Your task to perform on an android device: toggle pop-ups in chrome Image 0: 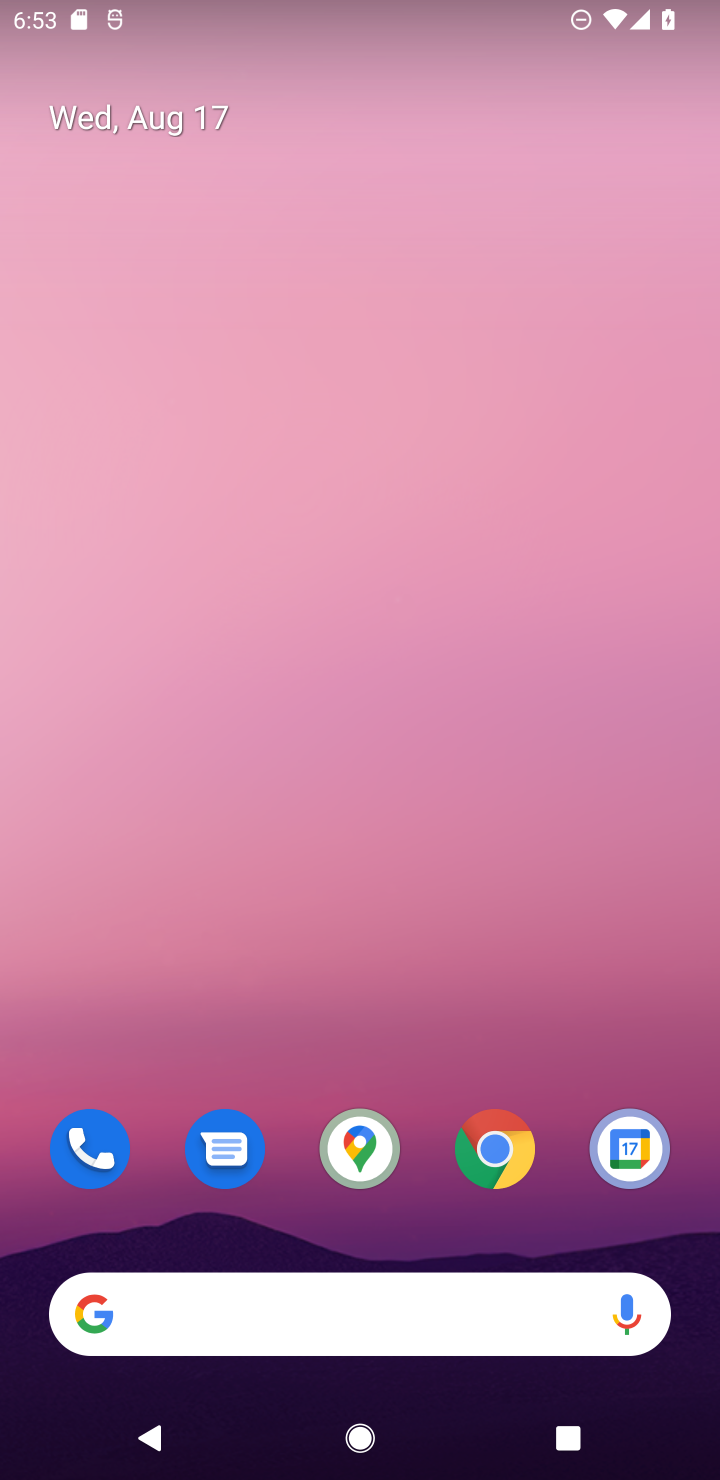
Step 0: click (497, 1156)
Your task to perform on an android device: toggle pop-ups in chrome Image 1: 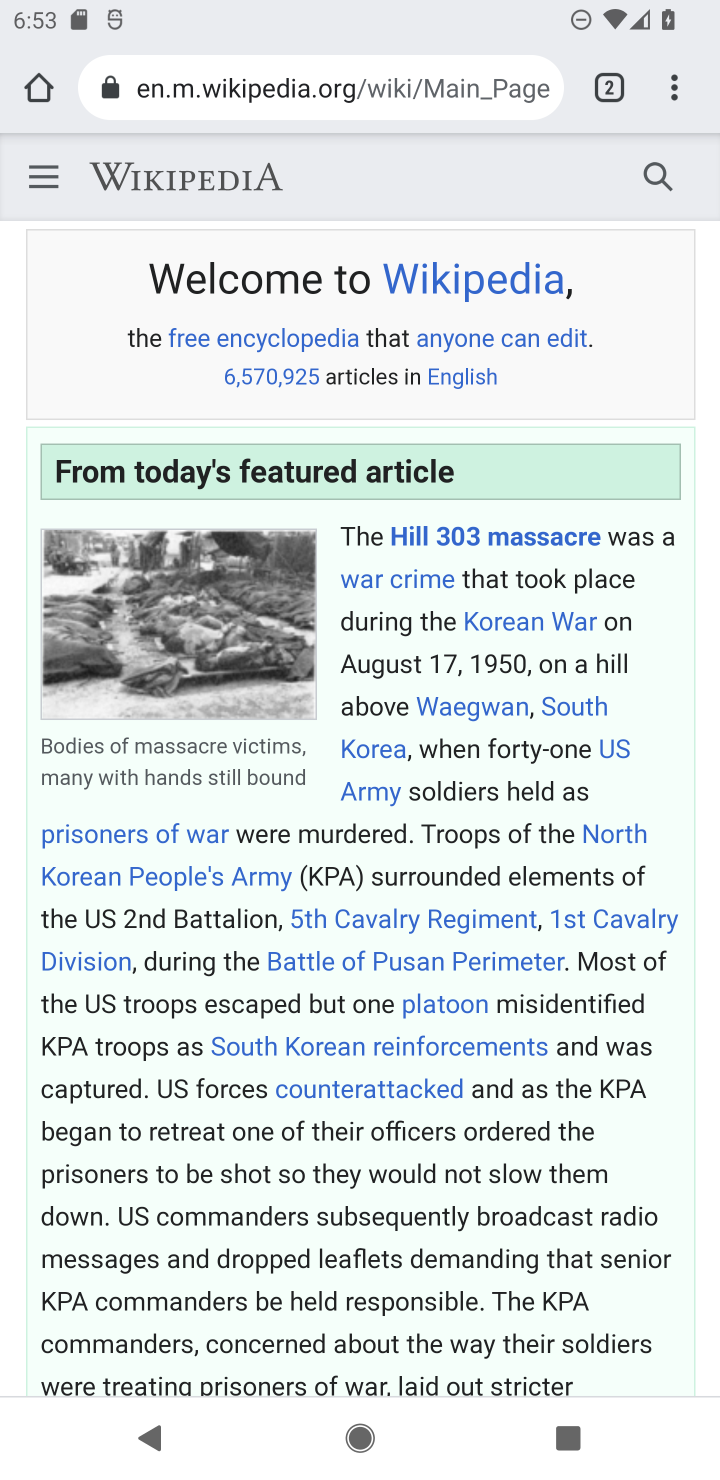
Step 1: click (670, 77)
Your task to perform on an android device: toggle pop-ups in chrome Image 2: 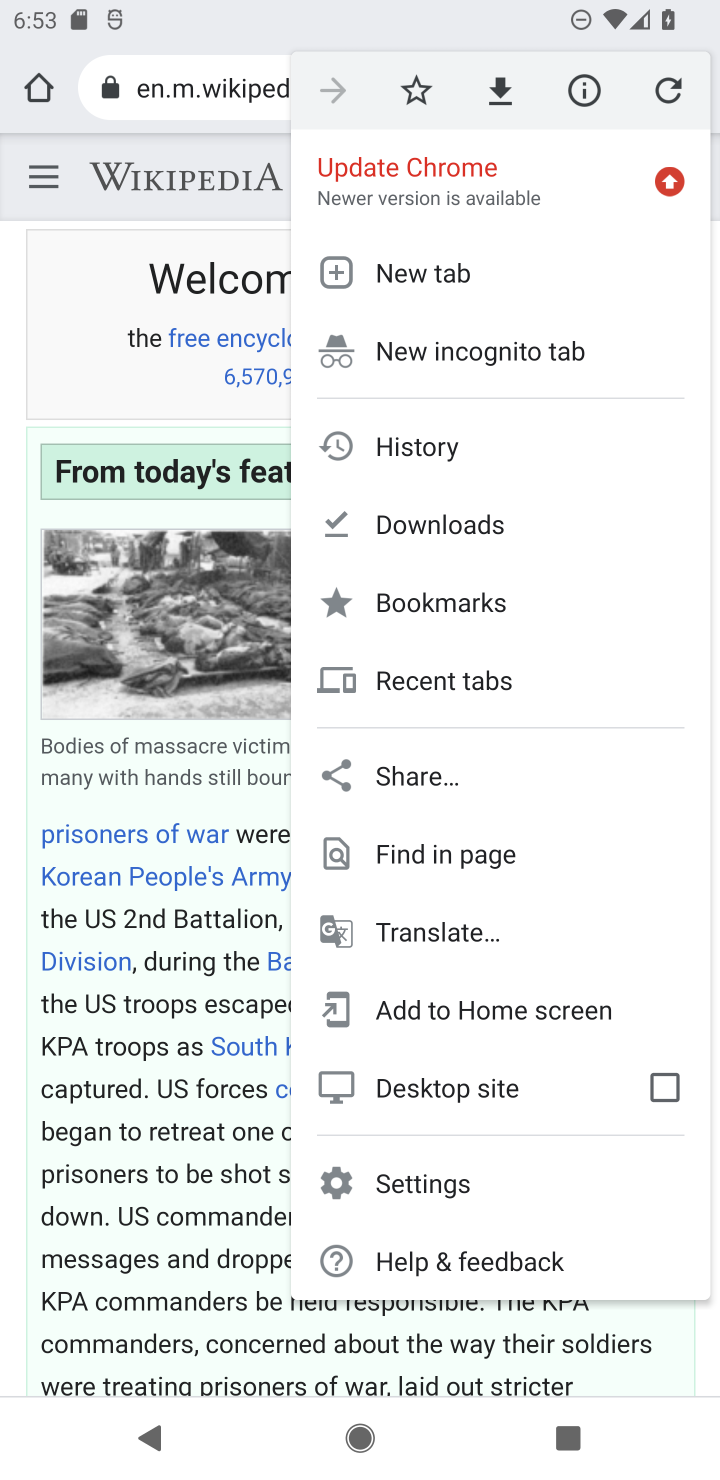
Step 2: click (436, 1189)
Your task to perform on an android device: toggle pop-ups in chrome Image 3: 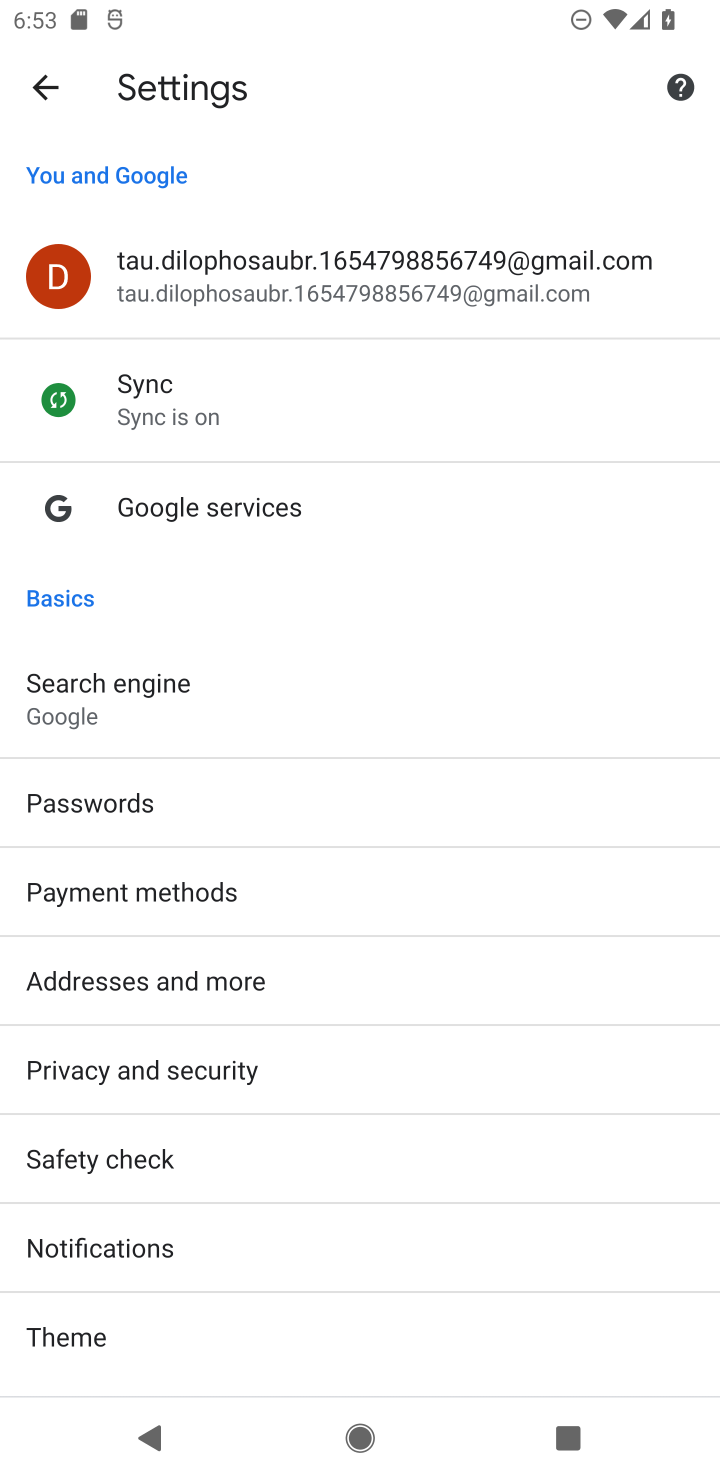
Step 3: drag from (326, 1212) to (291, 879)
Your task to perform on an android device: toggle pop-ups in chrome Image 4: 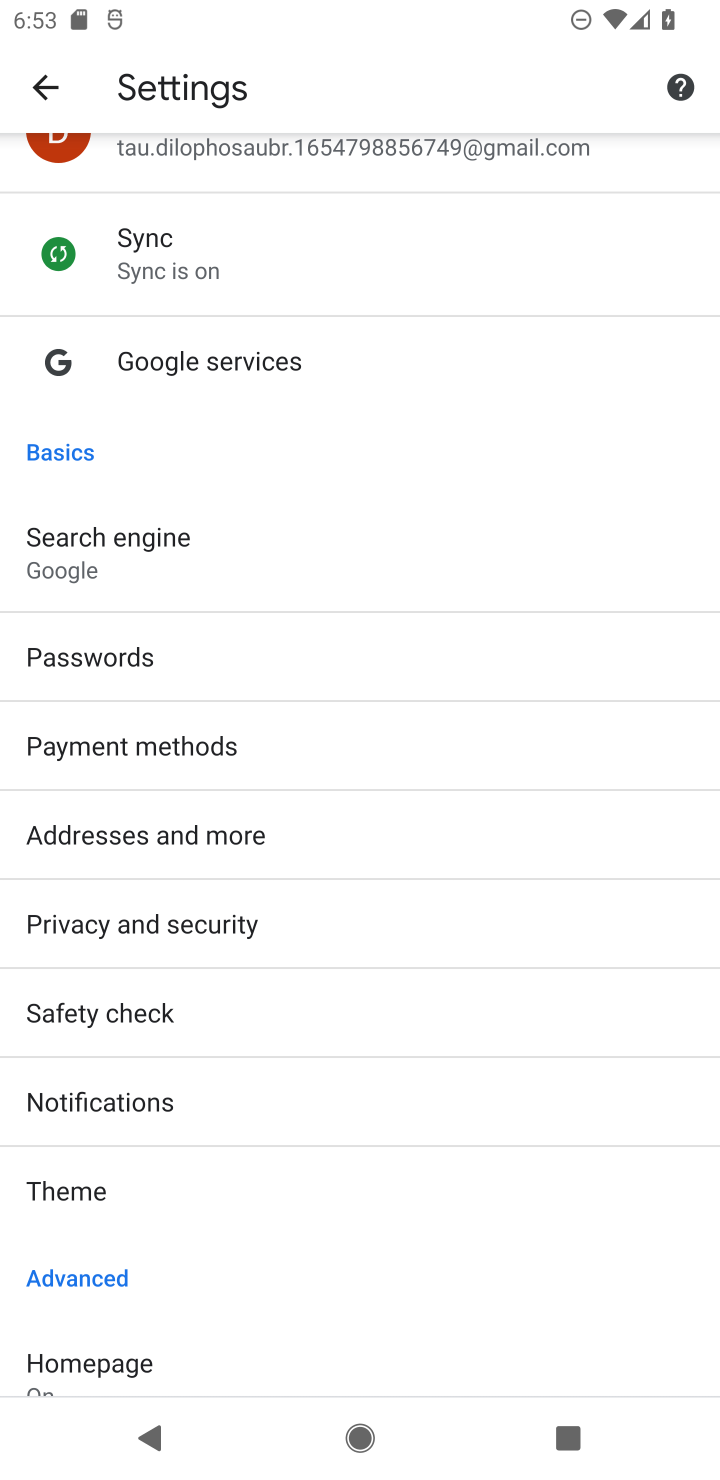
Step 4: drag from (316, 1109) to (265, 726)
Your task to perform on an android device: toggle pop-ups in chrome Image 5: 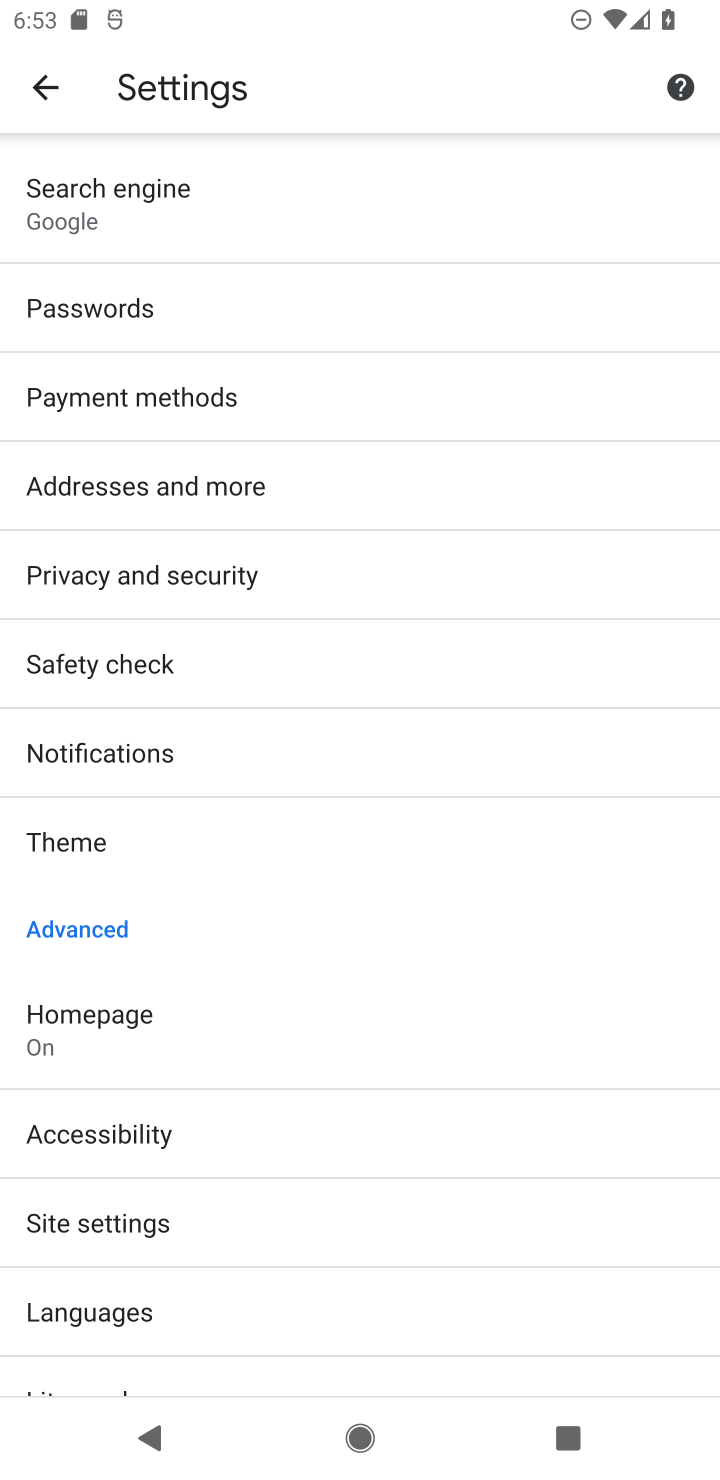
Step 5: click (136, 1209)
Your task to perform on an android device: toggle pop-ups in chrome Image 6: 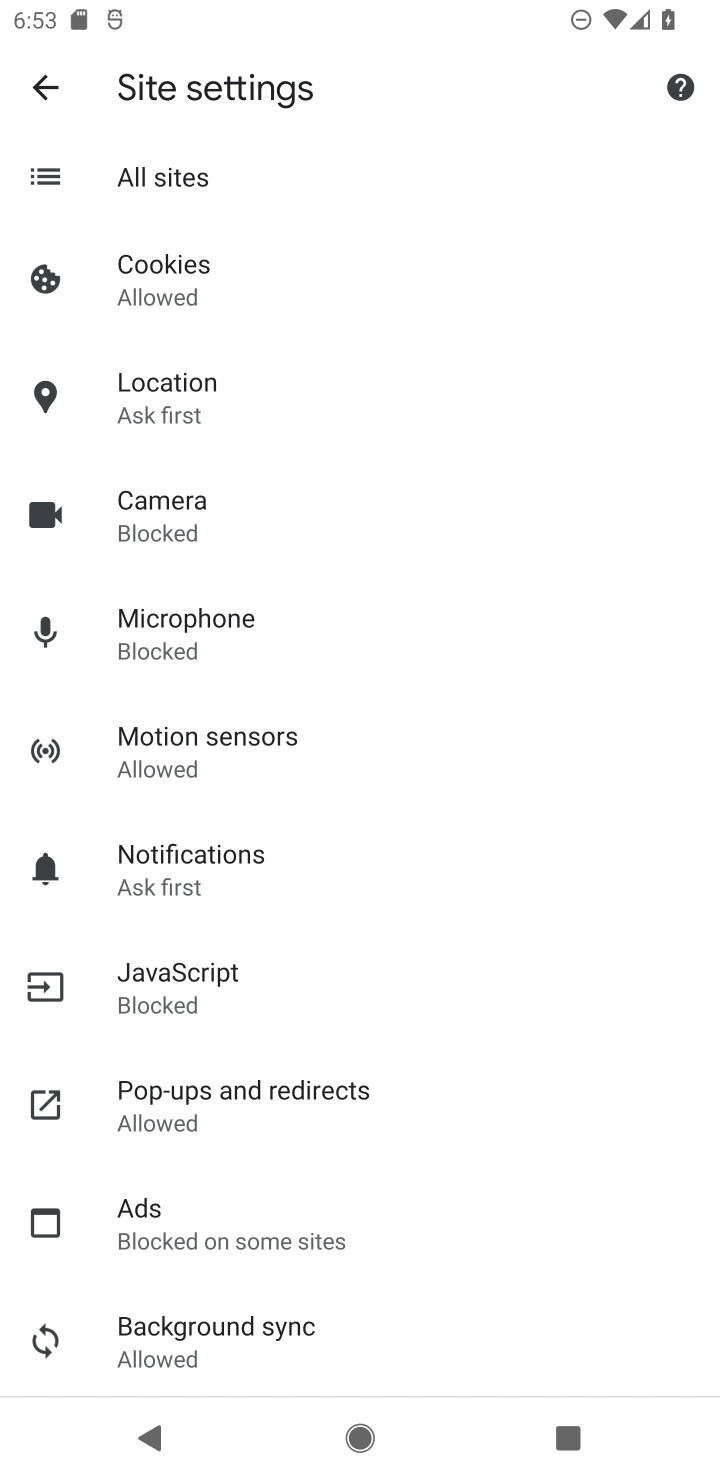
Step 6: click (202, 1077)
Your task to perform on an android device: toggle pop-ups in chrome Image 7: 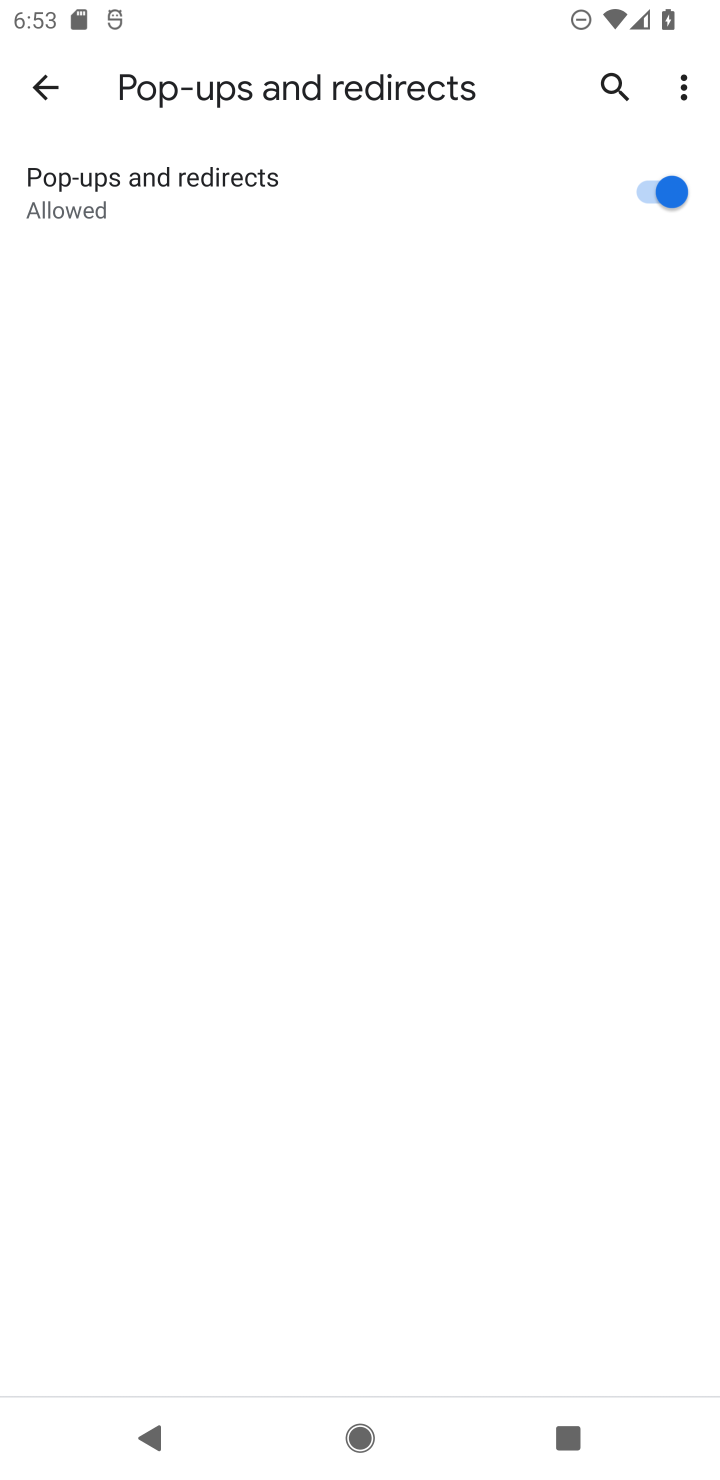
Step 7: click (651, 174)
Your task to perform on an android device: toggle pop-ups in chrome Image 8: 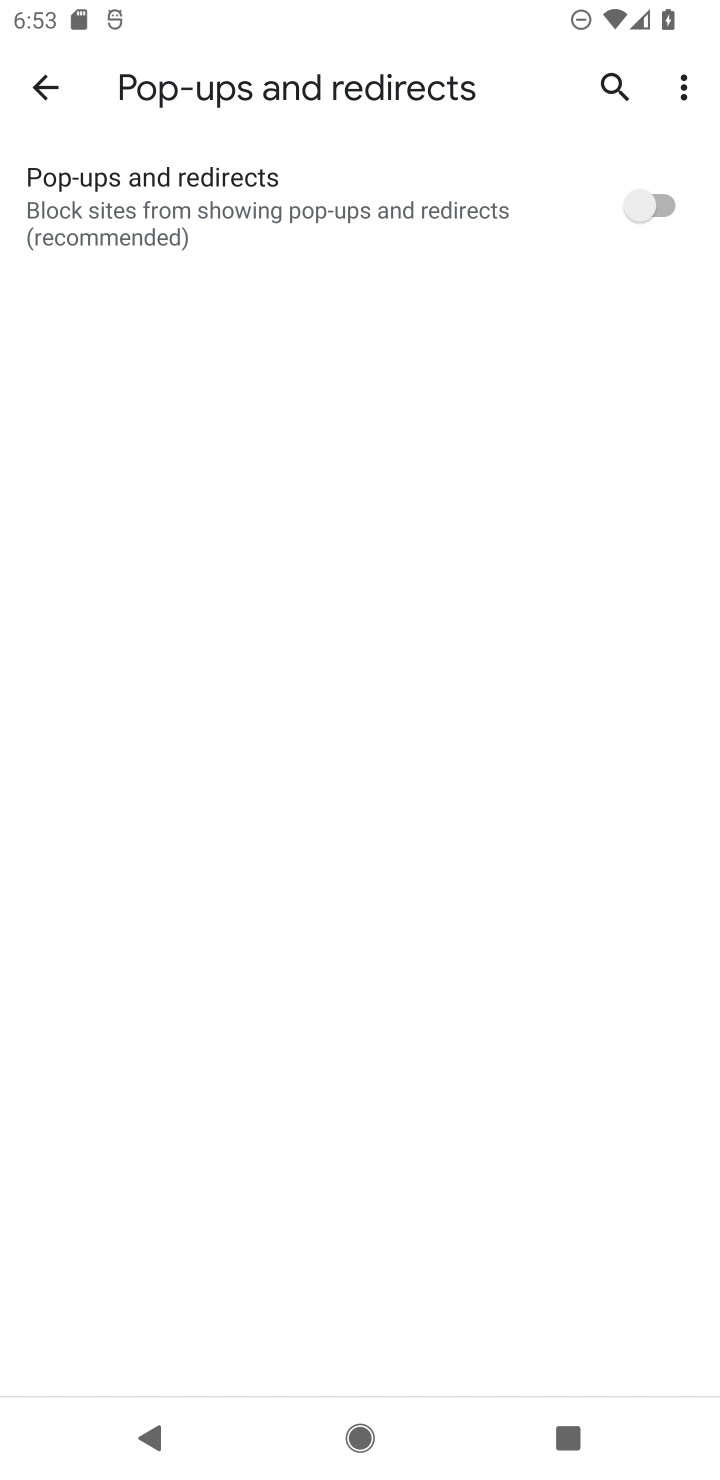
Step 8: task complete